Your task to perform on an android device: show emergency info Image 0: 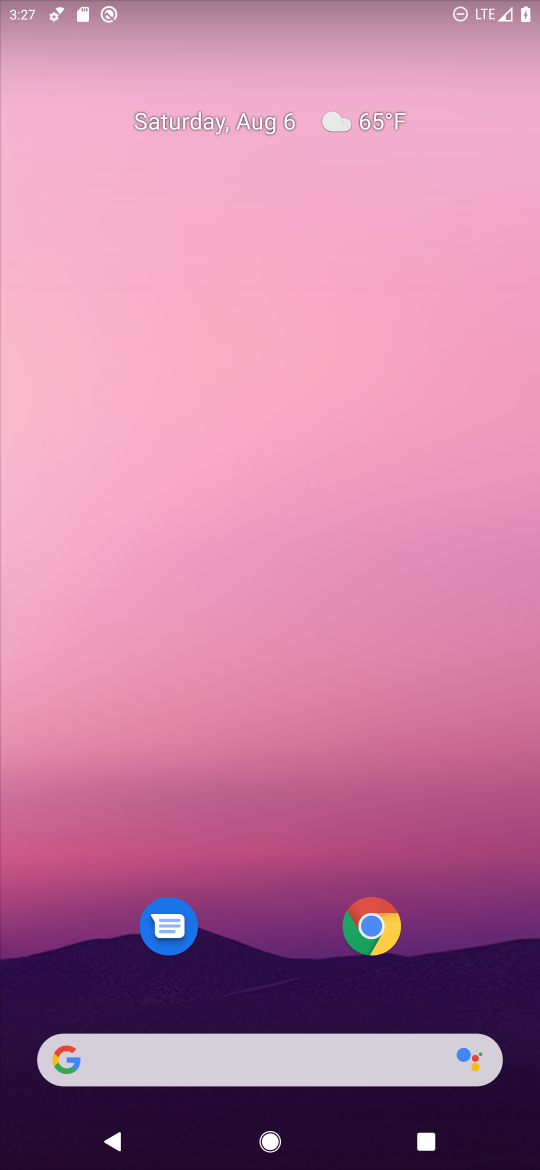
Step 0: drag from (298, 900) to (298, 291)
Your task to perform on an android device: show emergency info Image 1: 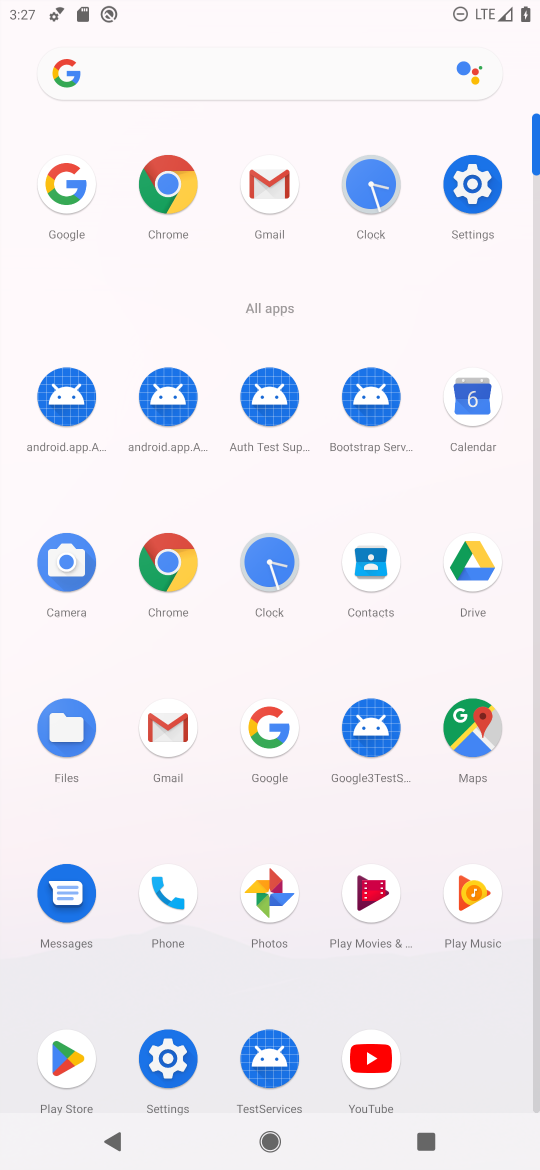
Step 1: click (473, 184)
Your task to perform on an android device: show emergency info Image 2: 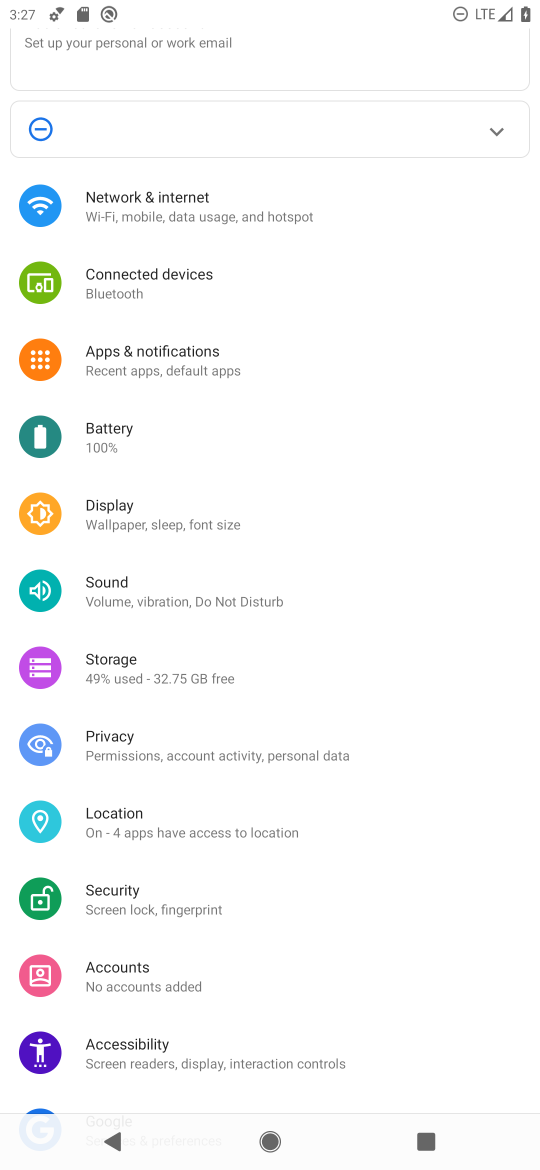
Step 2: drag from (230, 944) to (230, 280)
Your task to perform on an android device: show emergency info Image 3: 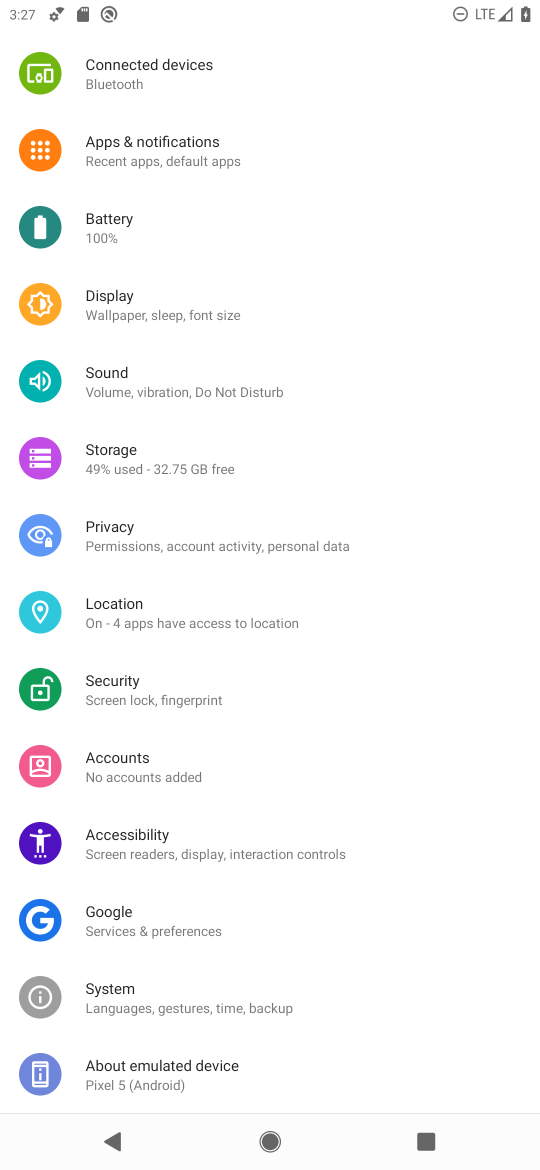
Step 3: click (158, 1072)
Your task to perform on an android device: show emergency info Image 4: 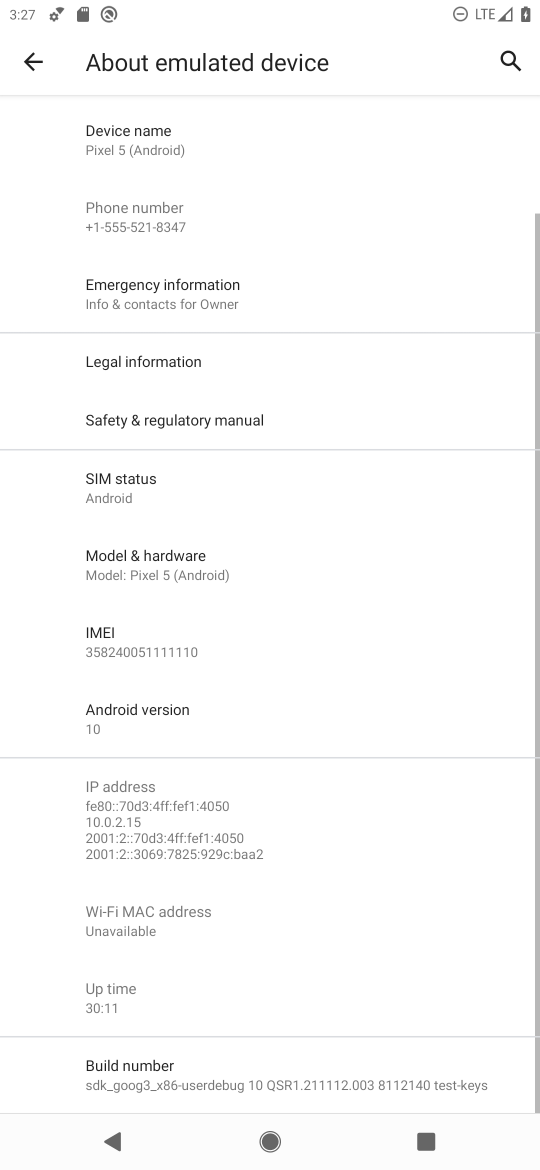
Step 4: click (219, 308)
Your task to perform on an android device: show emergency info Image 5: 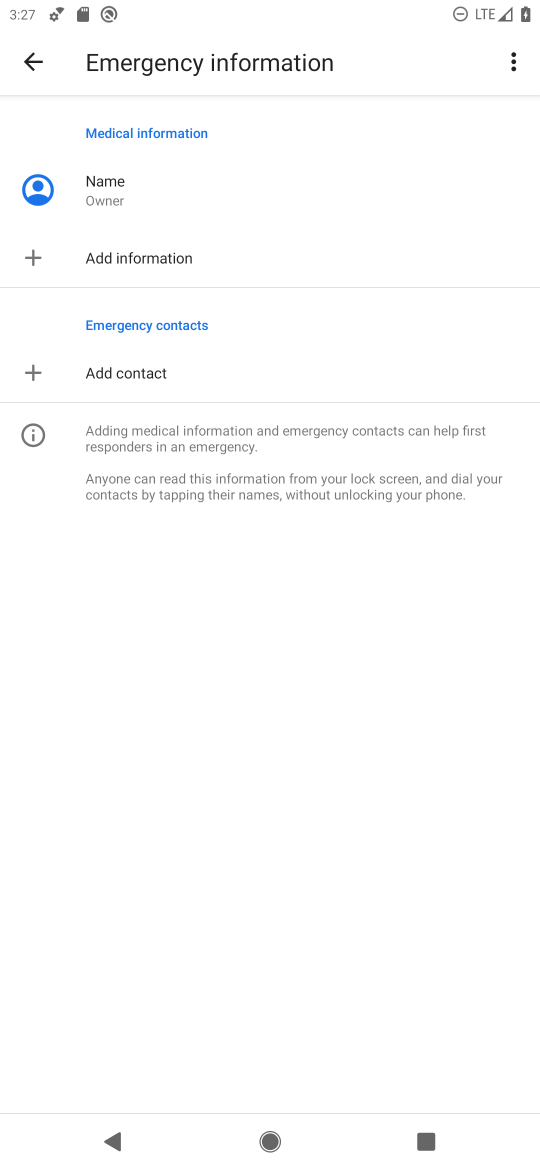
Step 5: task complete